Your task to perform on an android device: read, delete, or share a saved page in the chrome app Image 0: 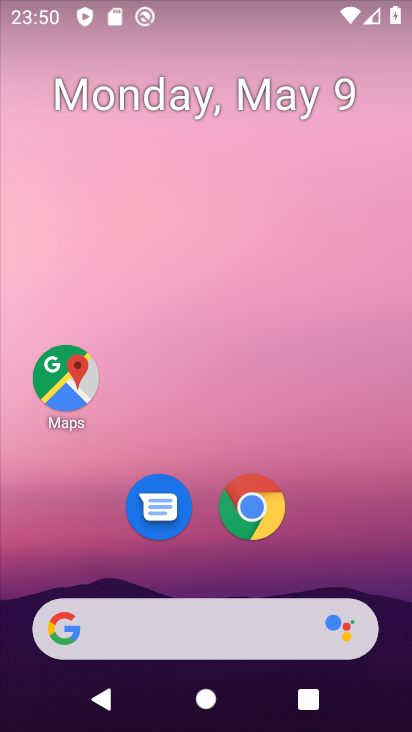
Step 0: click (259, 501)
Your task to perform on an android device: read, delete, or share a saved page in the chrome app Image 1: 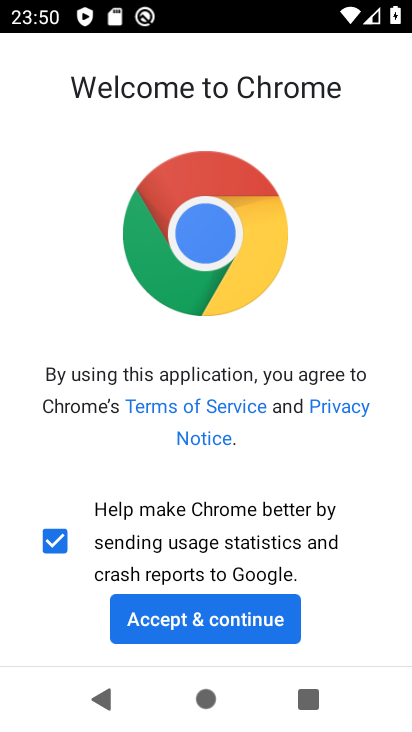
Step 1: click (229, 608)
Your task to perform on an android device: read, delete, or share a saved page in the chrome app Image 2: 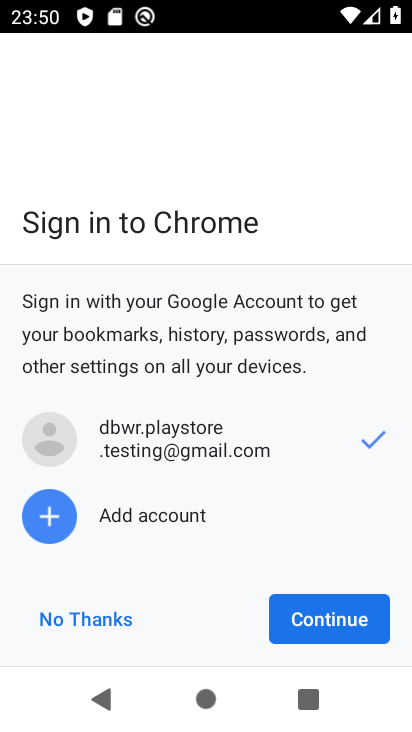
Step 2: click (330, 606)
Your task to perform on an android device: read, delete, or share a saved page in the chrome app Image 3: 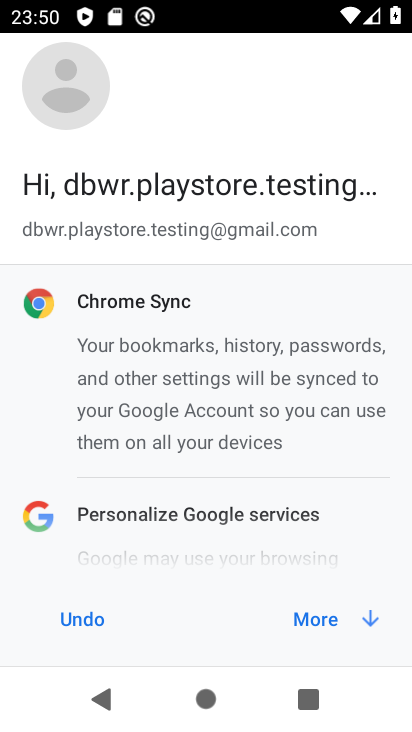
Step 3: click (353, 619)
Your task to perform on an android device: read, delete, or share a saved page in the chrome app Image 4: 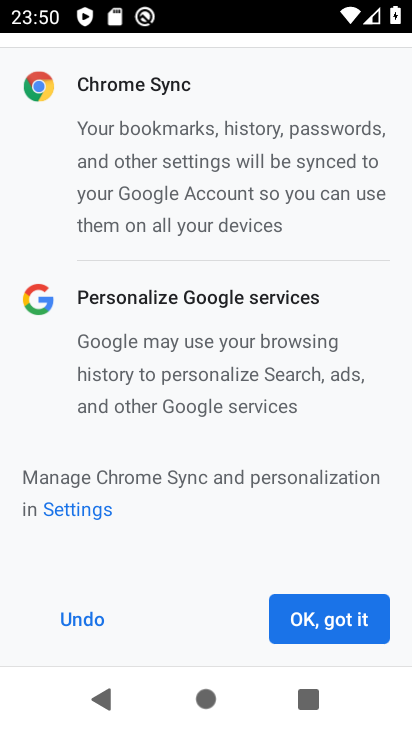
Step 4: click (352, 619)
Your task to perform on an android device: read, delete, or share a saved page in the chrome app Image 5: 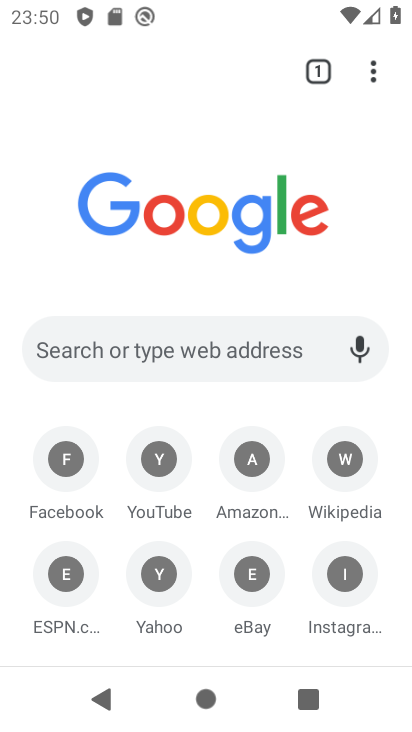
Step 5: click (377, 76)
Your task to perform on an android device: read, delete, or share a saved page in the chrome app Image 6: 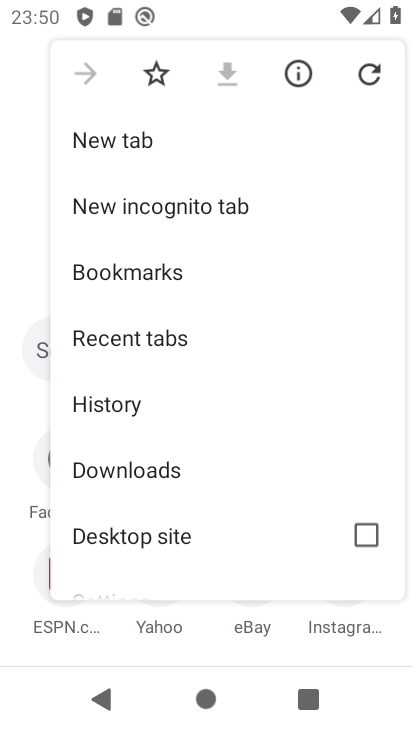
Step 6: click (132, 466)
Your task to perform on an android device: read, delete, or share a saved page in the chrome app Image 7: 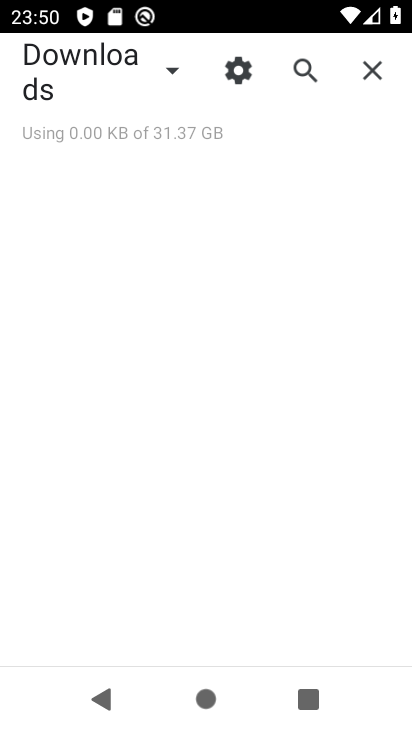
Step 7: task complete